Your task to perform on an android device: delete the emails in spam in the gmail app Image 0: 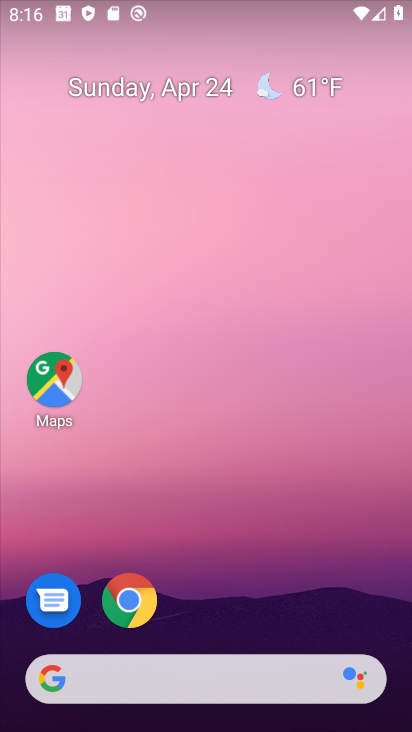
Step 0: drag from (238, 572) to (218, 300)
Your task to perform on an android device: delete the emails in spam in the gmail app Image 1: 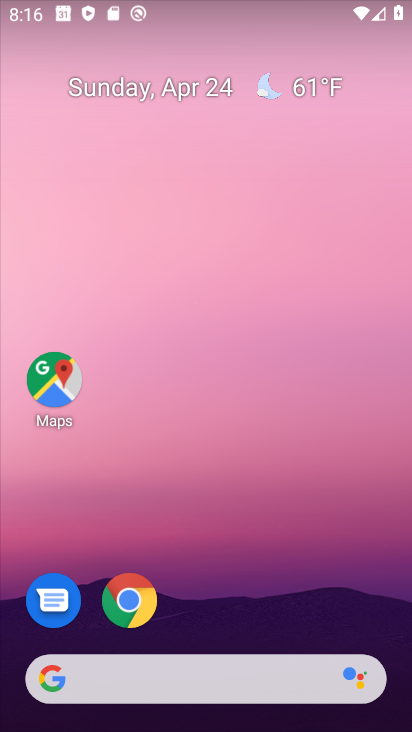
Step 1: drag from (244, 730) to (244, 87)
Your task to perform on an android device: delete the emails in spam in the gmail app Image 2: 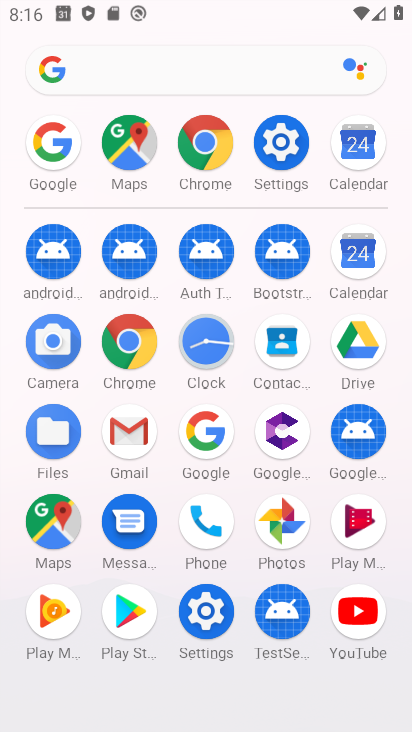
Step 2: click (116, 430)
Your task to perform on an android device: delete the emails in spam in the gmail app Image 3: 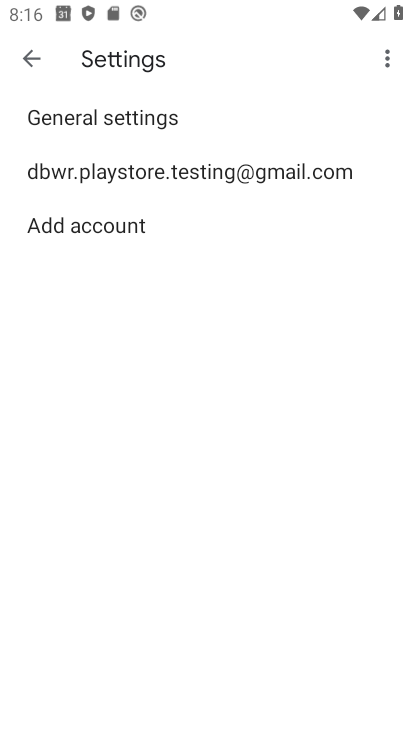
Step 3: click (215, 166)
Your task to perform on an android device: delete the emails in spam in the gmail app Image 4: 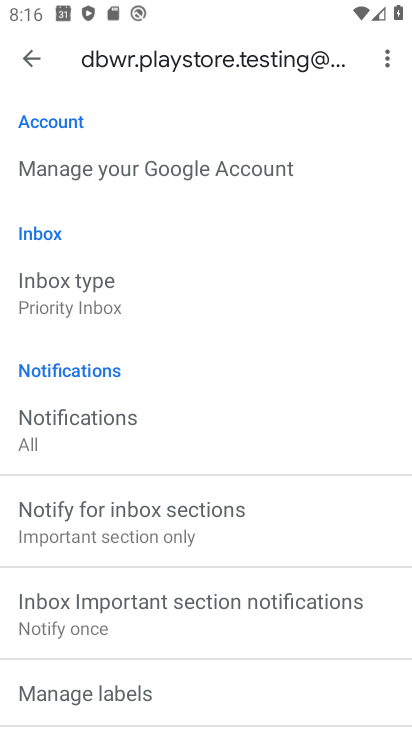
Step 4: click (30, 57)
Your task to perform on an android device: delete the emails in spam in the gmail app Image 5: 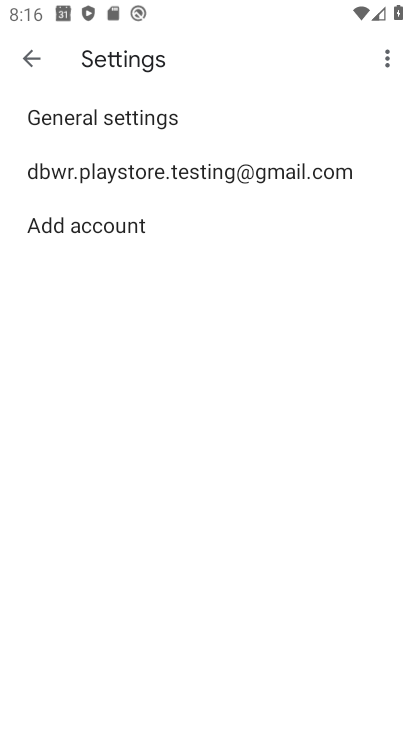
Step 5: click (29, 57)
Your task to perform on an android device: delete the emails in spam in the gmail app Image 6: 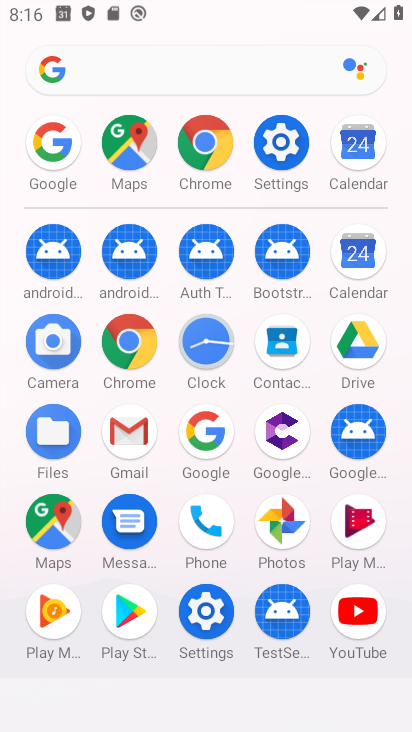
Step 6: click (130, 434)
Your task to perform on an android device: delete the emails in spam in the gmail app Image 7: 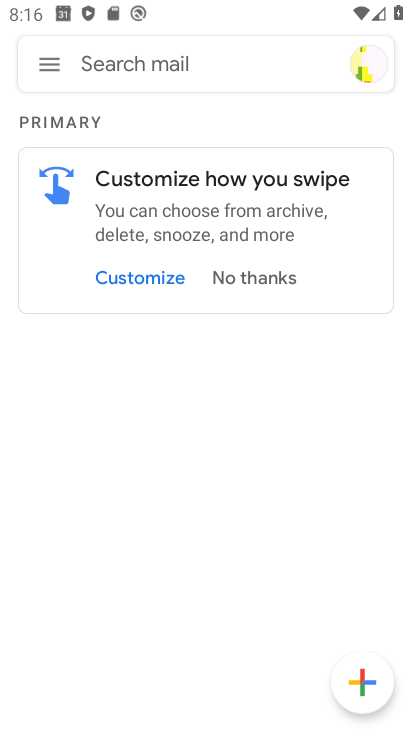
Step 7: click (42, 70)
Your task to perform on an android device: delete the emails in spam in the gmail app Image 8: 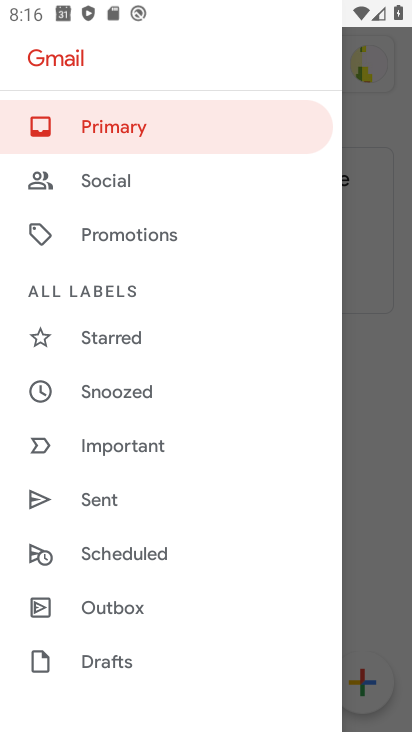
Step 8: drag from (133, 646) to (130, 329)
Your task to perform on an android device: delete the emails in spam in the gmail app Image 9: 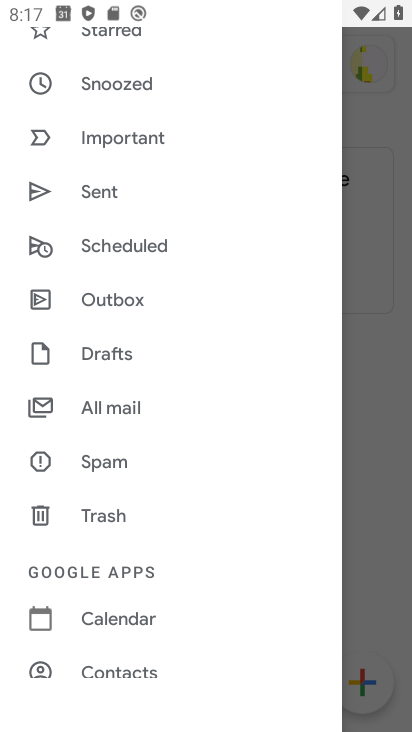
Step 9: click (108, 461)
Your task to perform on an android device: delete the emails in spam in the gmail app Image 10: 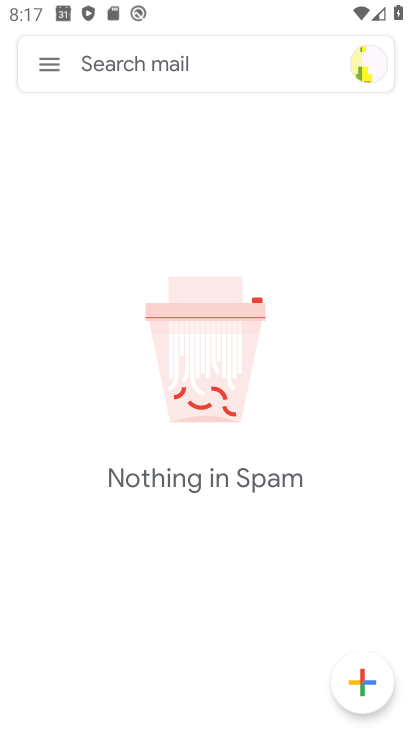
Step 10: task complete